Your task to perform on an android device: check battery use Image 0: 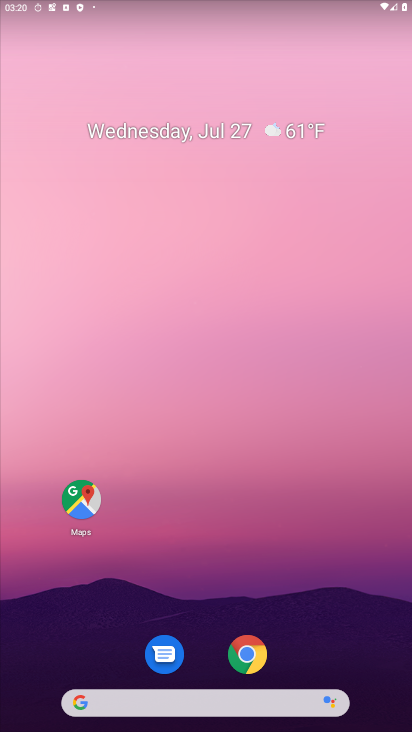
Step 0: drag from (319, 704) to (242, 121)
Your task to perform on an android device: check battery use Image 1: 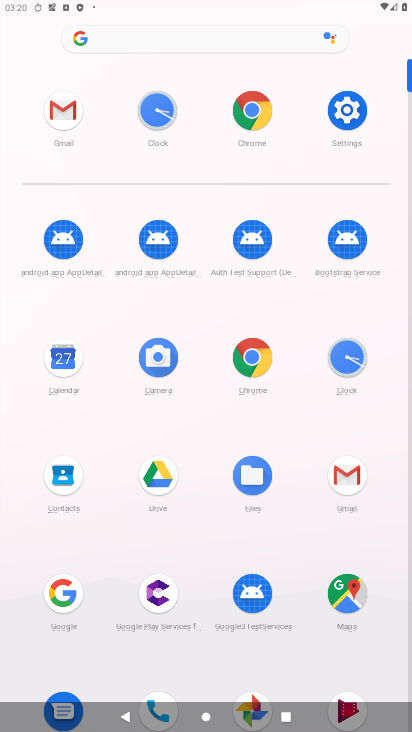
Step 1: click (355, 95)
Your task to perform on an android device: check battery use Image 2: 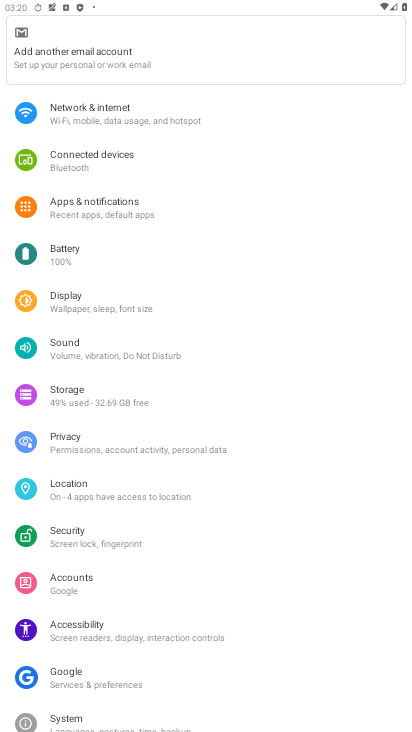
Step 2: click (88, 252)
Your task to perform on an android device: check battery use Image 3: 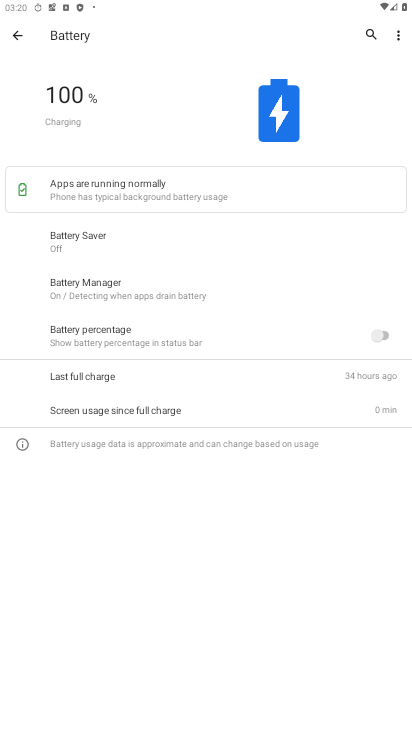
Step 3: task complete